Your task to perform on an android device: Open calendar and show me the first week of next month Image 0: 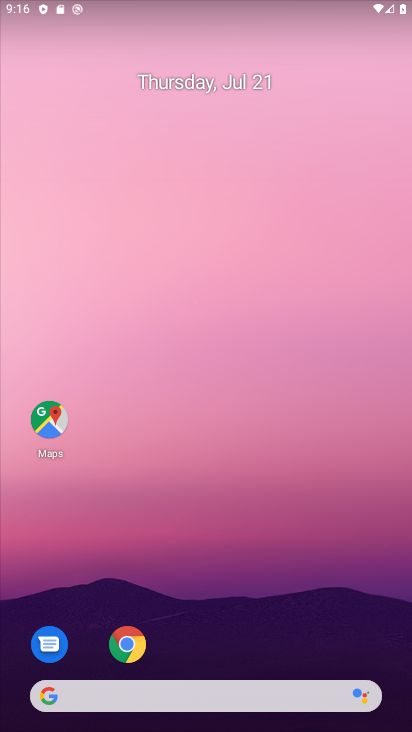
Step 0: task complete